Your task to perform on an android device: Check the weather Image 0: 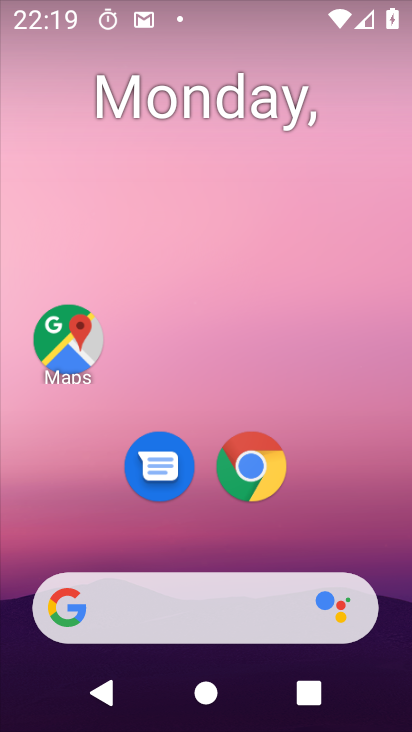
Step 0: click (232, 597)
Your task to perform on an android device: Check the weather Image 1: 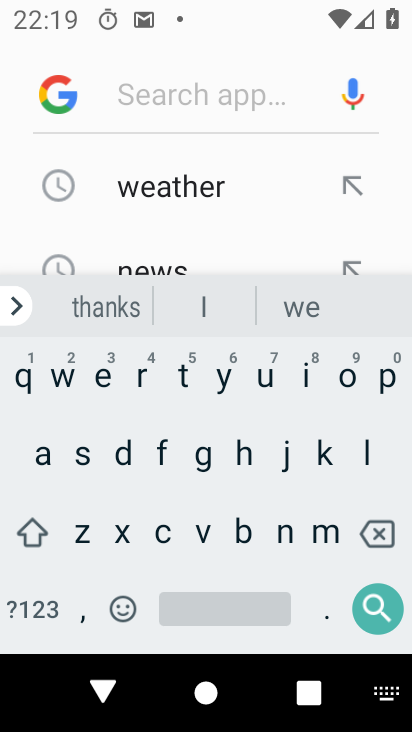
Step 1: click (154, 200)
Your task to perform on an android device: Check the weather Image 2: 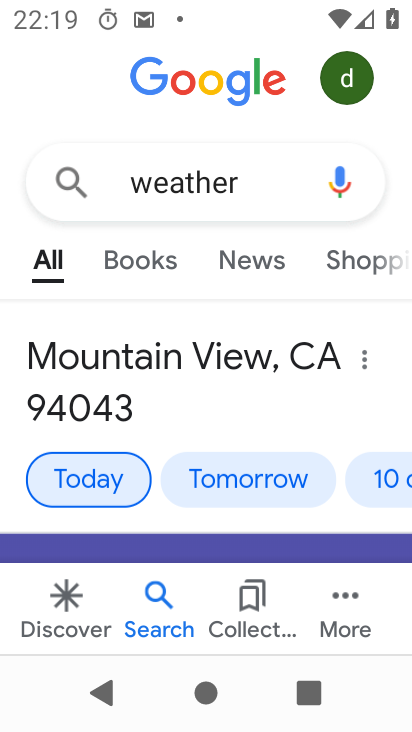
Step 2: task complete